Your task to perform on an android device: check battery use Image 0: 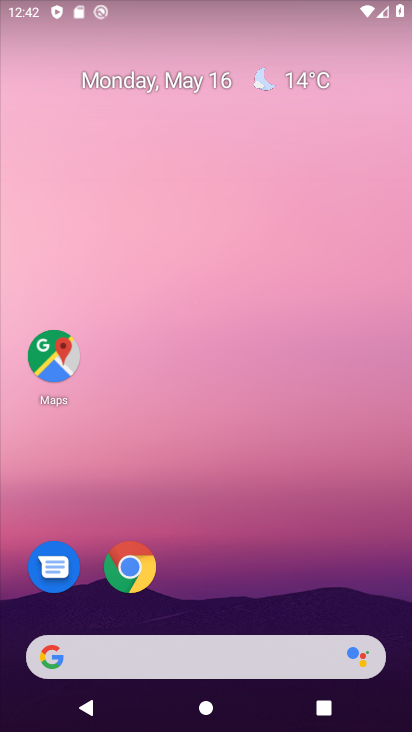
Step 0: press home button
Your task to perform on an android device: check battery use Image 1: 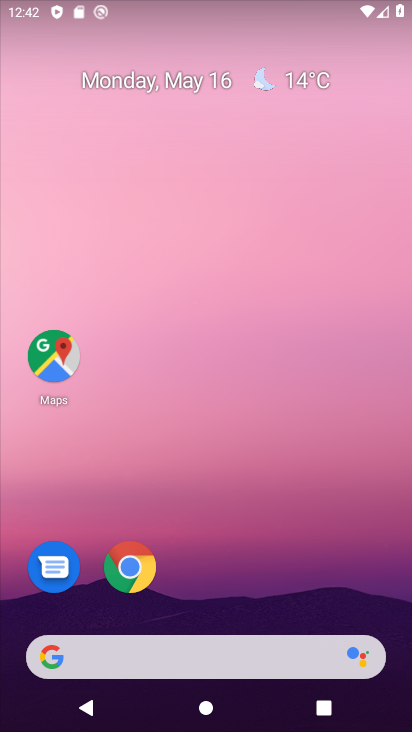
Step 1: drag from (235, 509) to (115, 10)
Your task to perform on an android device: check battery use Image 2: 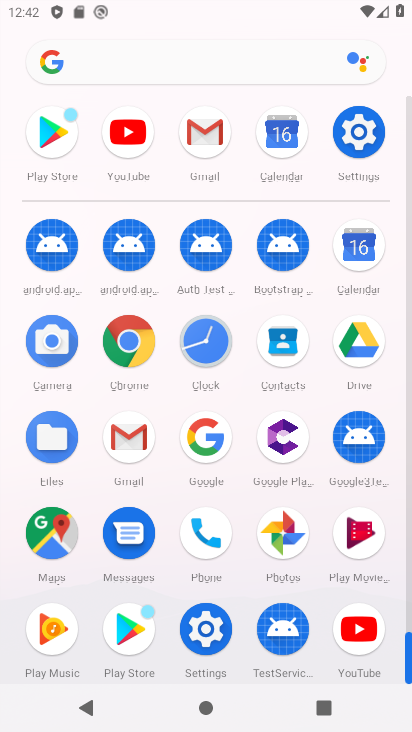
Step 2: click (356, 140)
Your task to perform on an android device: check battery use Image 3: 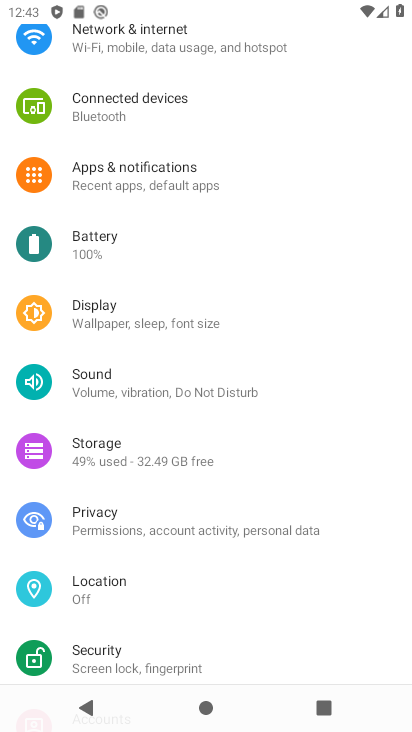
Step 3: click (80, 236)
Your task to perform on an android device: check battery use Image 4: 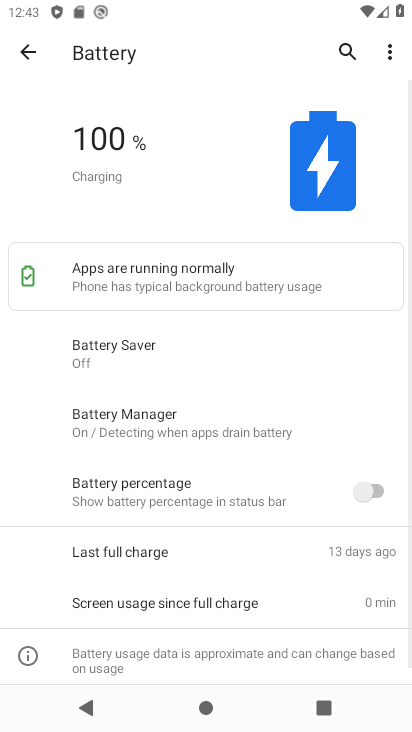
Step 4: task complete